Your task to perform on an android device: Open wifi settings Image 0: 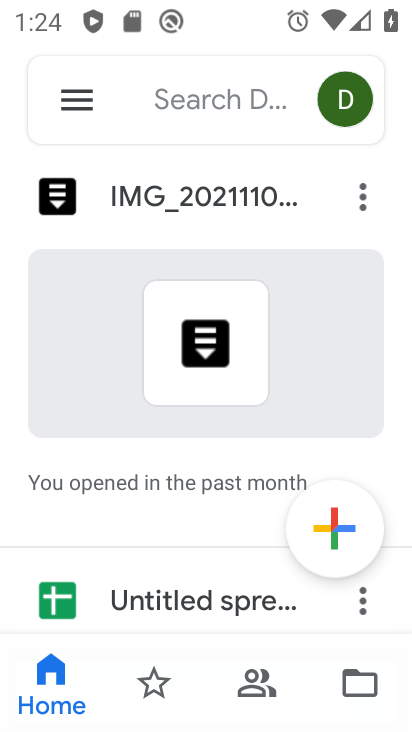
Step 0: press home button
Your task to perform on an android device: Open wifi settings Image 1: 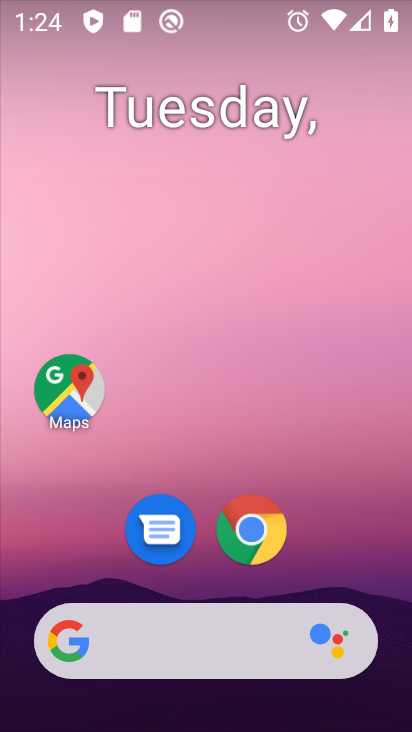
Step 1: drag from (383, 609) to (271, 58)
Your task to perform on an android device: Open wifi settings Image 2: 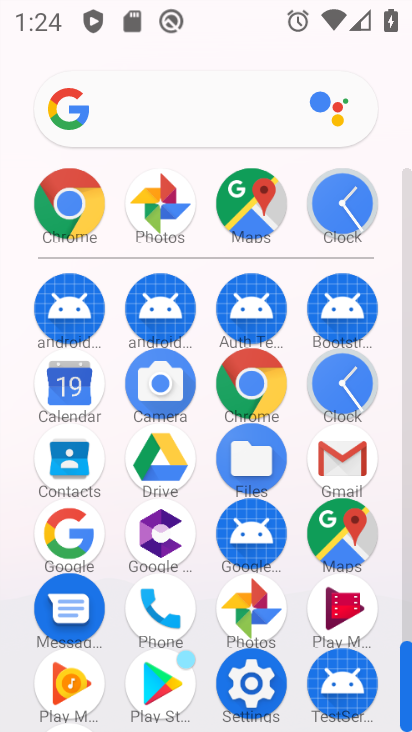
Step 2: click (245, 662)
Your task to perform on an android device: Open wifi settings Image 3: 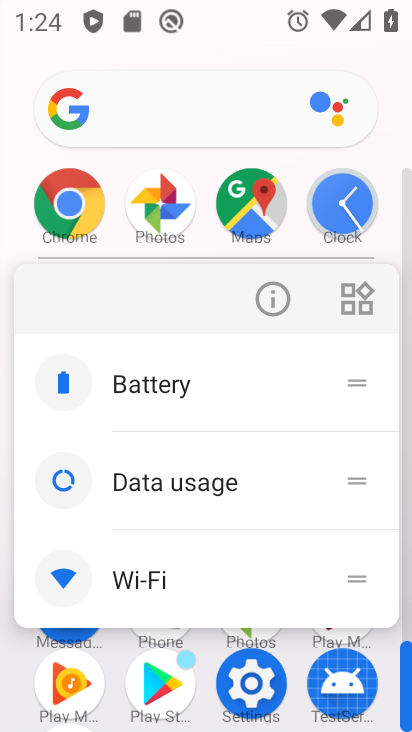
Step 3: click (258, 673)
Your task to perform on an android device: Open wifi settings Image 4: 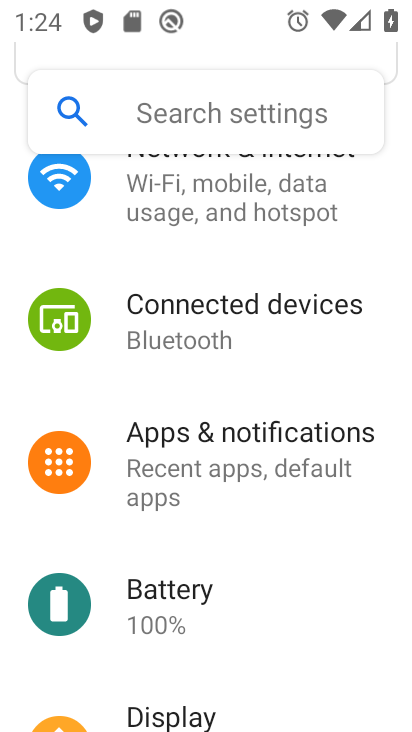
Step 4: click (138, 220)
Your task to perform on an android device: Open wifi settings Image 5: 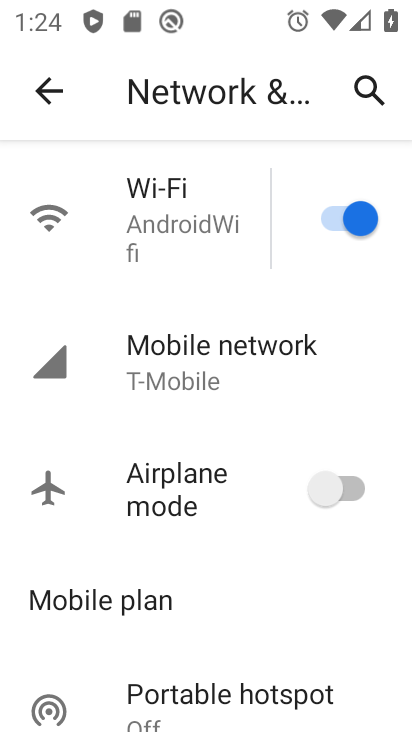
Step 5: click (154, 218)
Your task to perform on an android device: Open wifi settings Image 6: 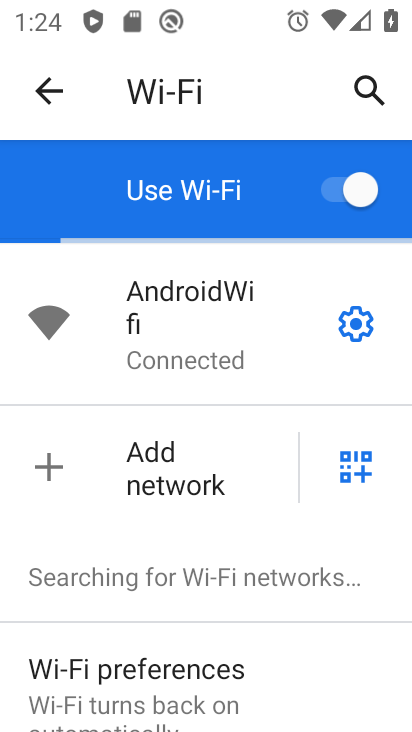
Step 6: task complete